Your task to perform on an android device: set the stopwatch Image 0: 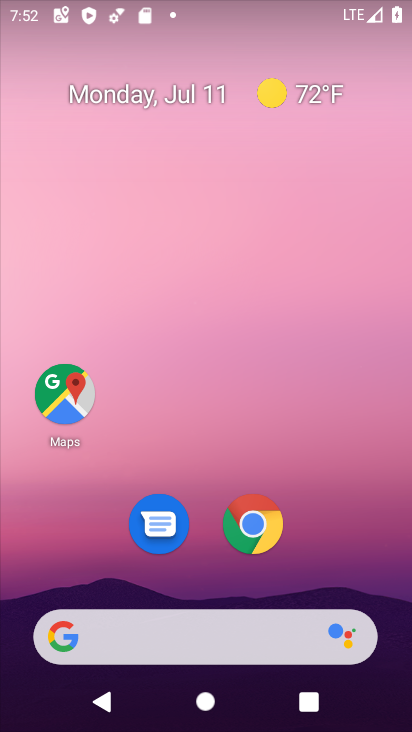
Step 0: drag from (303, 532) to (370, 71)
Your task to perform on an android device: set the stopwatch Image 1: 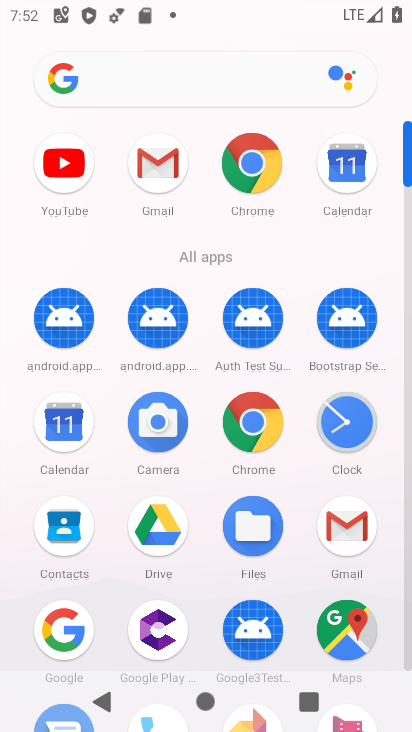
Step 1: click (353, 430)
Your task to perform on an android device: set the stopwatch Image 2: 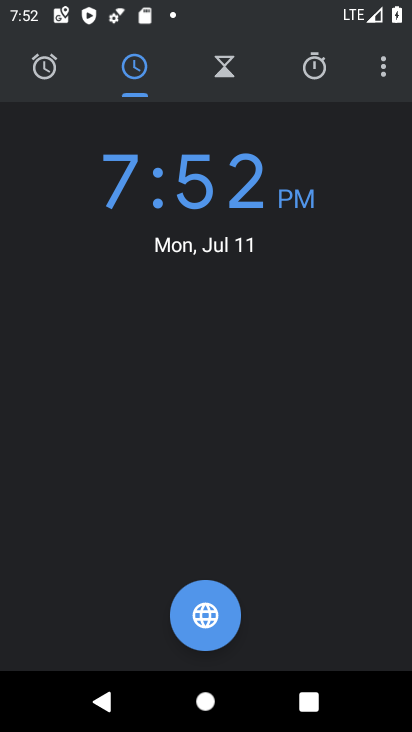
Step 2: click (312, 73)
Your task to perform on an android device: set the stopwatch Image 3: 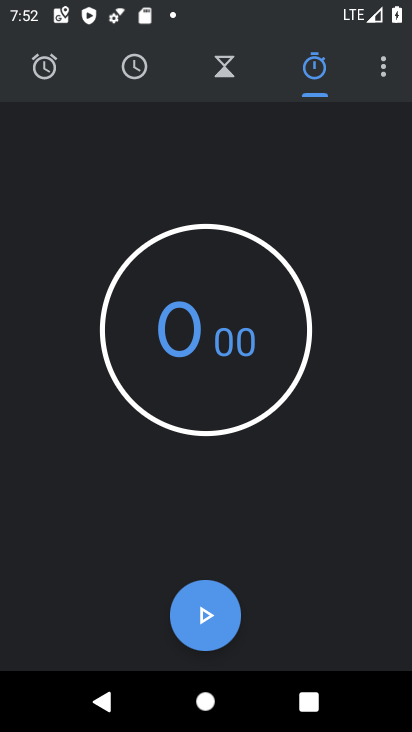
Step 3: task complete